Your task to perform on an android device: open the mobile data screen to see how much data has been used Image 0: 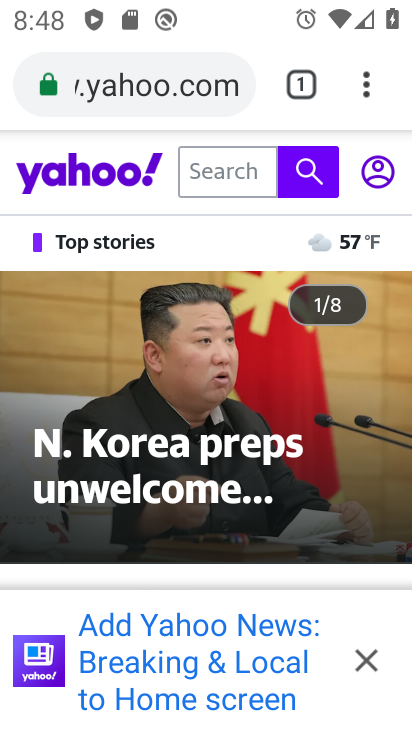
Step 0: drag from (189, 666) to (196, 159)
Your task to perform on an android device: open the mobile data screen to see how much data has been used Image 1: 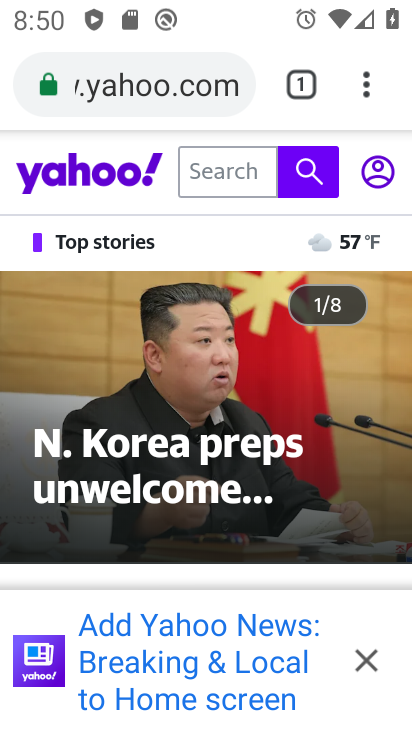
Step 1: press back button
Your task to perform on an android device: open the mobile data screen to see how much data has been used Image 2: 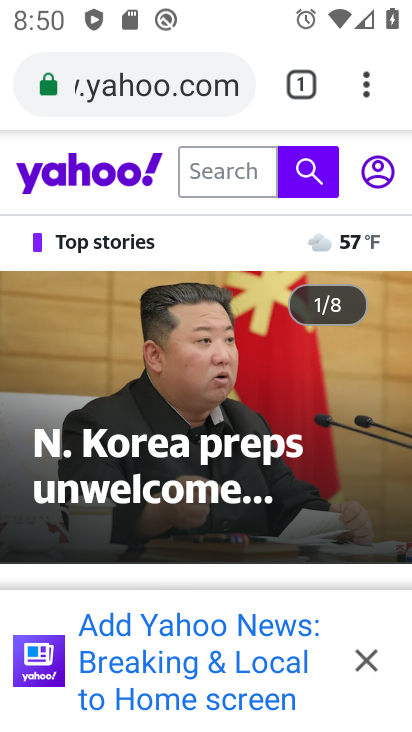
Step 2: press back button
Your task to perform on an android device: open the mobile data screen to see how much data has been used Image 3: 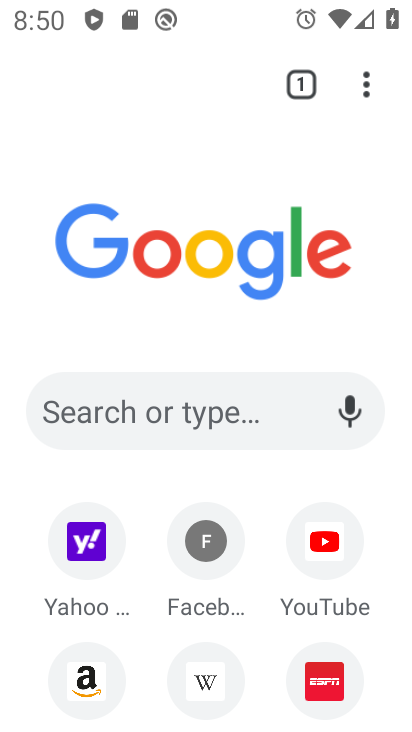
Step 3: press back button
Your task to perform on an android device: open the mobile data screen to see how much data has been used Image 4: 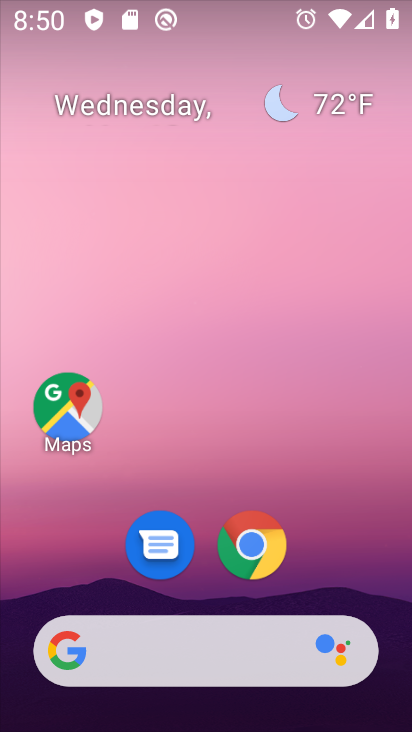
Step 4: drag from (330, 636) to (127, 83)
Your task to perform on an android device: open the mobile data screen to see how much data has been used Image 5: 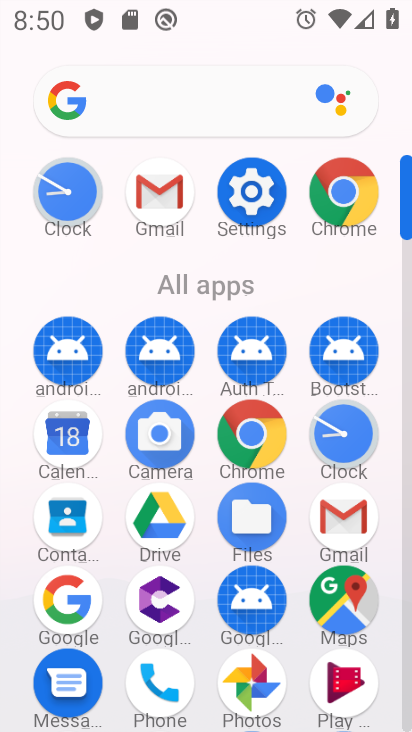
Step 5: click (252, 194)
Your task to perform on an android device: open the mobile data screen to see how much data has been used Image 6: 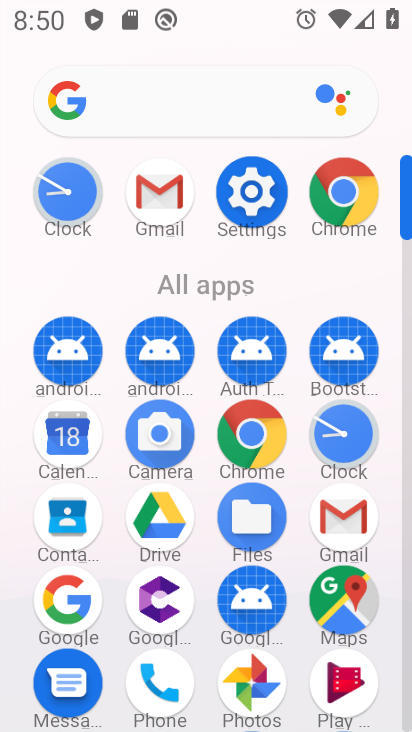
Step 6: click (252, 194)
Your task to perform on an android device: open the mobile data screen to see how much data has been used Image 7: 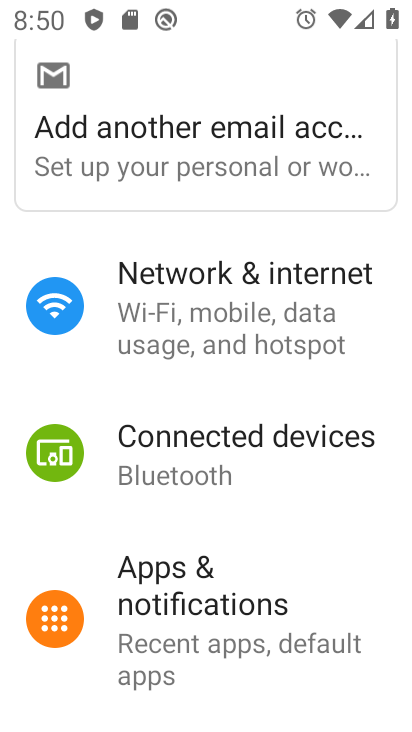
Step 7: click (252, 196)
Your task to perform on an android device: open the mobile data screen to see how much data has been used Image 8: 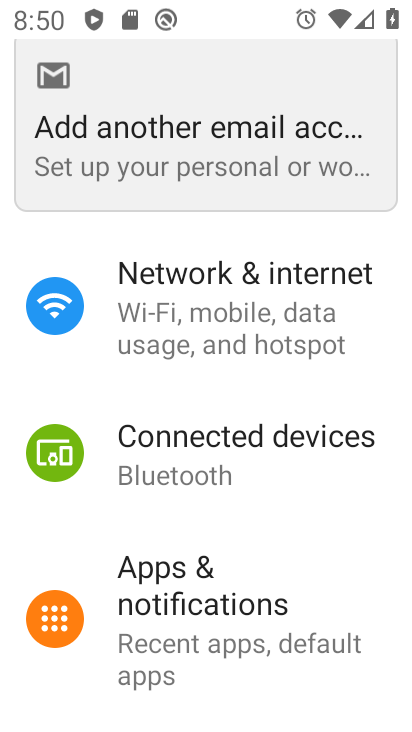
Step 8: click (252, 196)
Your task to perform on an android device: open the mobile data screen to see how much data has been used Image 9: 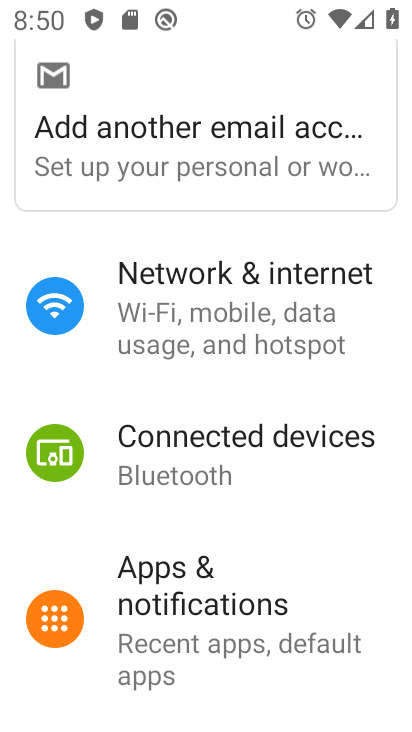
Step 9: click (252, 196)
Your task to perform on an android device: open the mobile data screen to see how much data has been used Image 10: 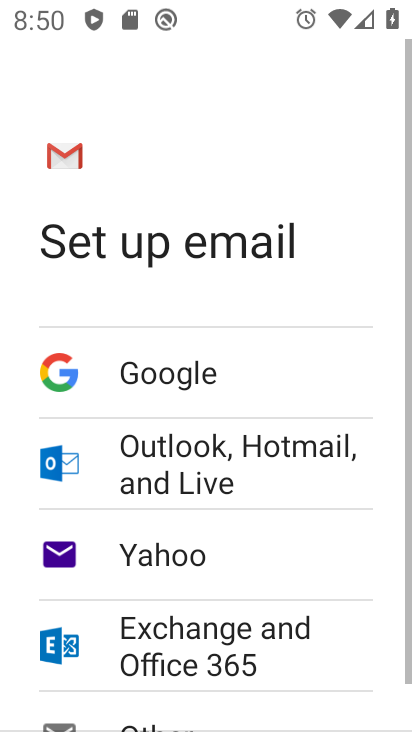
Step 10: task complete